Your task to perform on an android device: change text size in settings app Image 0: 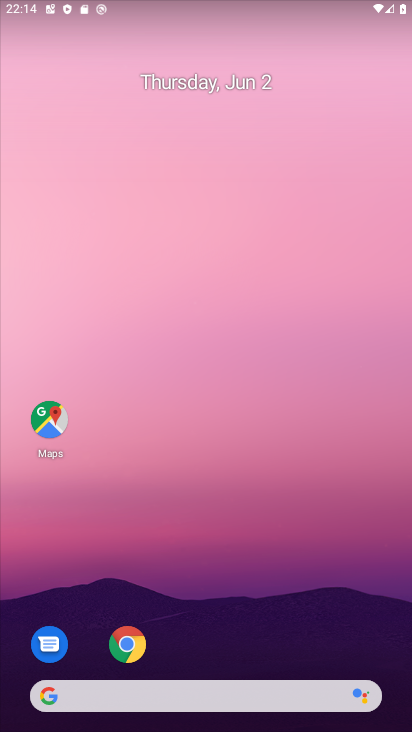
Step 0: drag from (206, 612) to (253, 242)
Your task to perform on an android device: change text size in settings app Image 1: 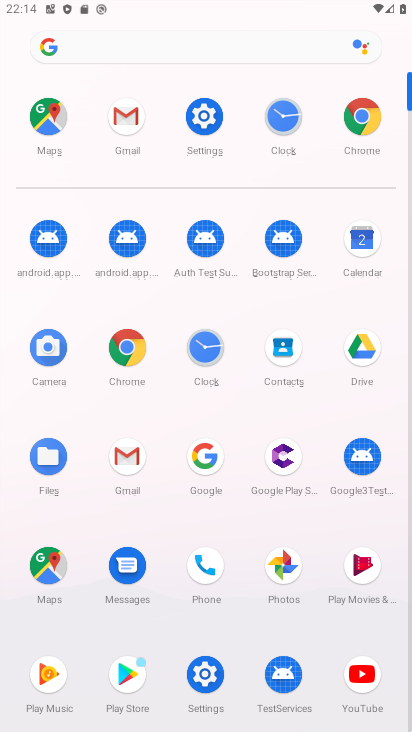
Step 1: click (200, 111)
Your task to perform on an android device: change text size in settings app Image 2: 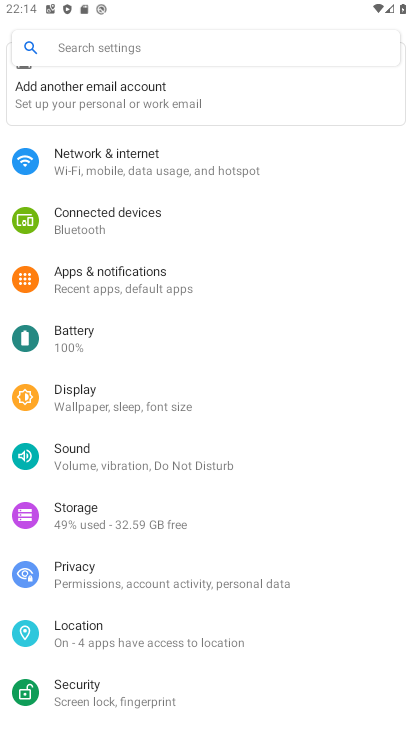
Step 2: click (101, 397)
Your task to perform on an android device: change text size in settings app Image 3: 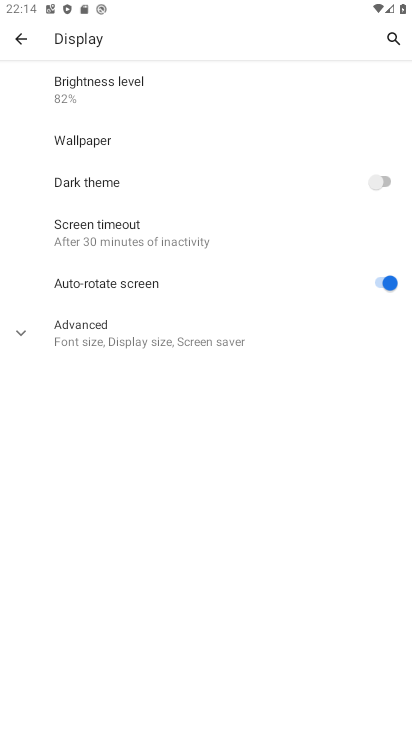
Step 3: click (124, 334)
Your task to perform on an android device: change text size in settings app Image 4: 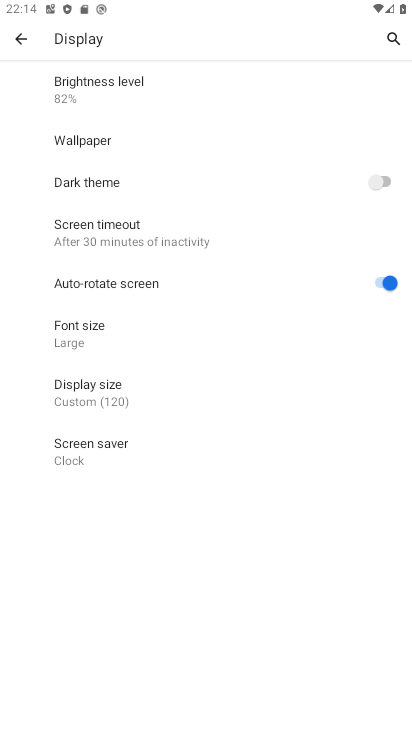
Step 4: click (73, 339)
Your task to perform on an android device: change text size in settings app Image 5: 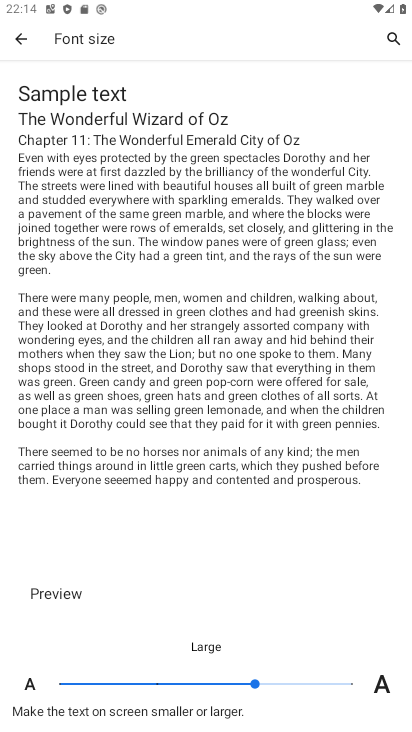
Step 5: click (176, 689)
Your task to perform on an android device: change text size in settings app Image 6: 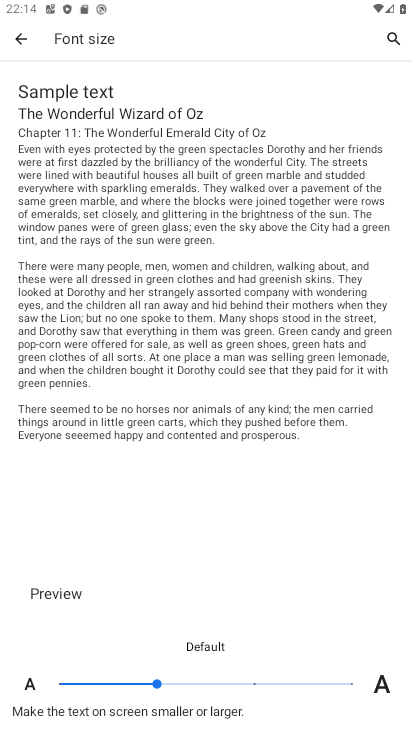
Step 6: click (177, 683)
Your task to perform on an android device: change text size in settings app Image 7: 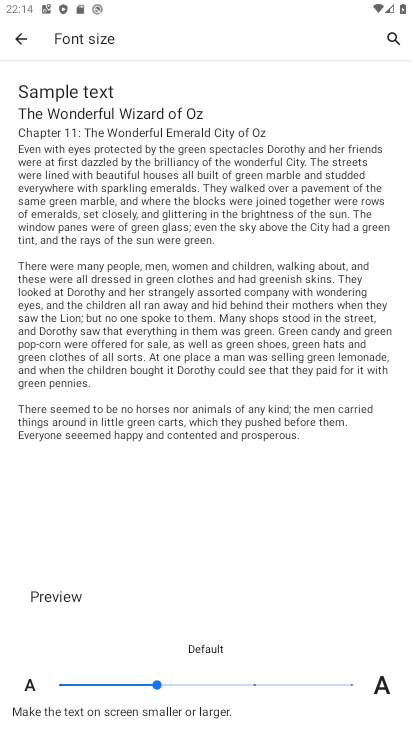
Step 7: task complete